Your task to perform on an android device: set the stopwatch Image 0: 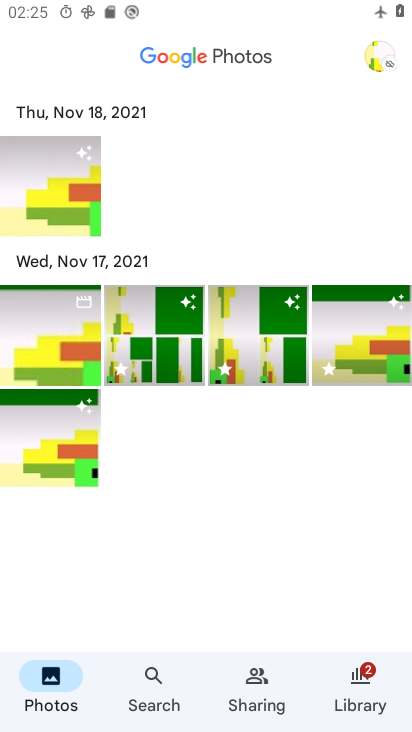
Step 0: press home button
Your task to perform on an android device: set the stopwatch Image 1: 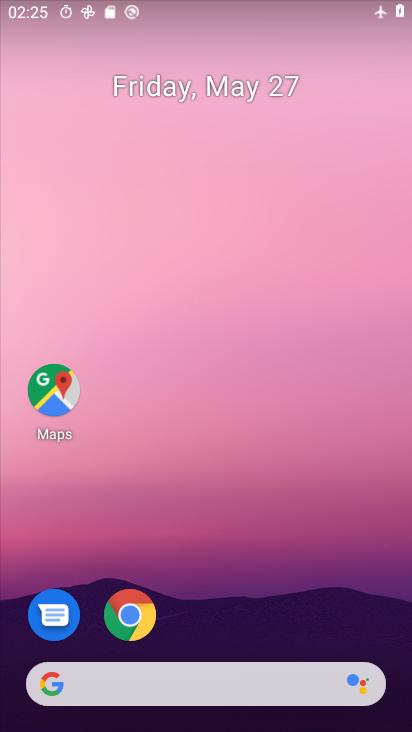
Step 1: drag from (351, 628) to (371, 185)
Your task to perform on an android device: set the stopwatch Image 2: 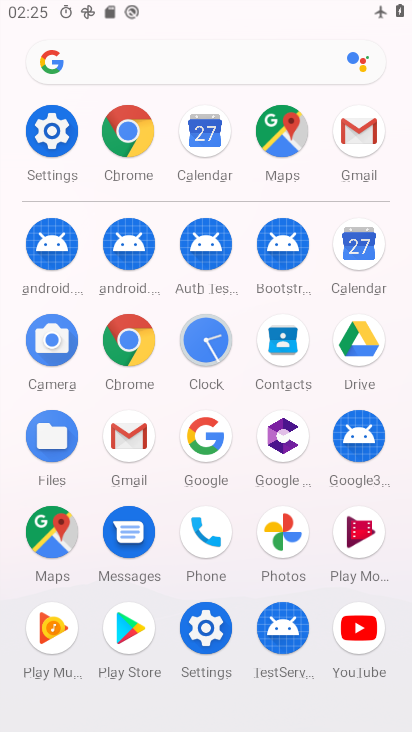
Step 2: click (215, 342)
Your task to perform on an android device: set the stopwatch Image 3: 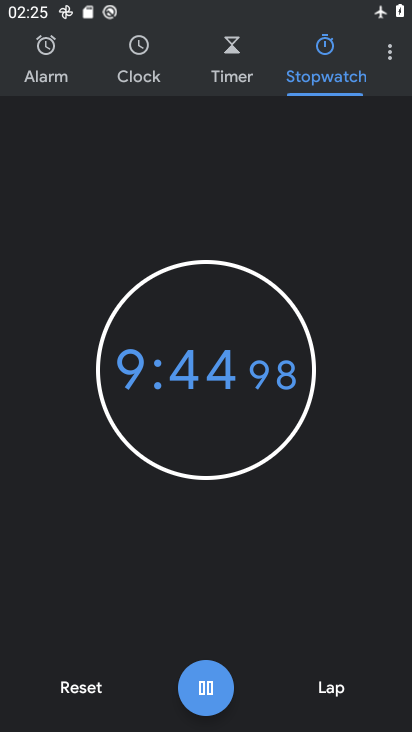
Step 3: task complete